Your task to perform on an android device: change timer sound Image 0: 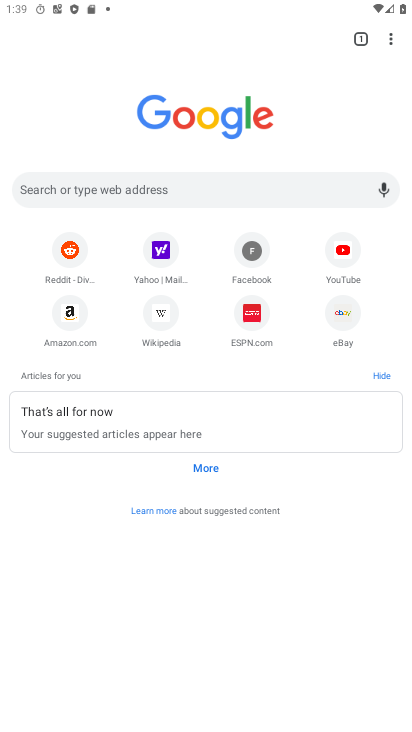
Step 0: press home button
Your task to perform on an android device: change timer sound Image 1: 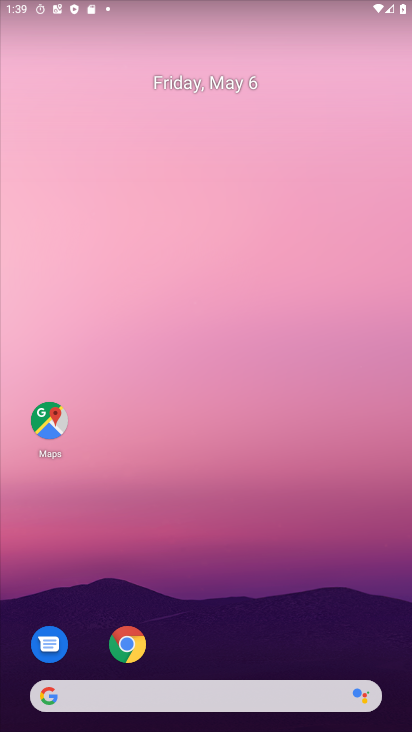
Step 1: drag from (209, 699) to (224, 64)
Your task to perform on an android device: change timer sound Image 2: 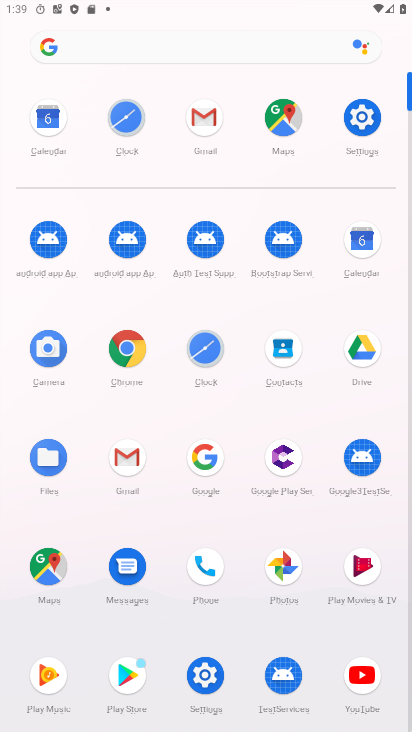
Step 2: click (219, 352)
Your task to perform on an android device: change timer sound Image 3: 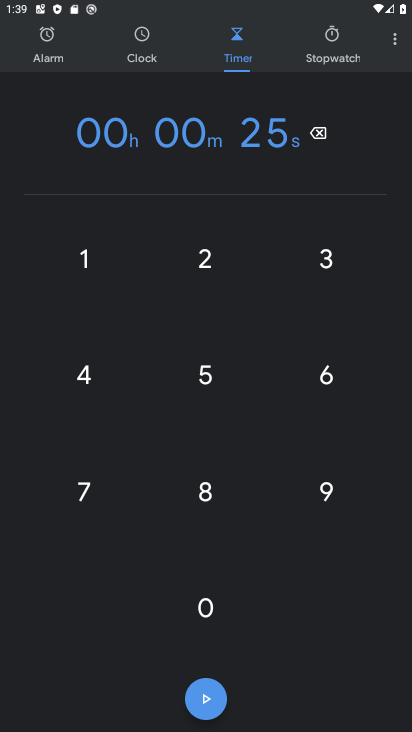
Step 3: click (392, 42)
Your task to perform on an android device: change timer sound Image 4: 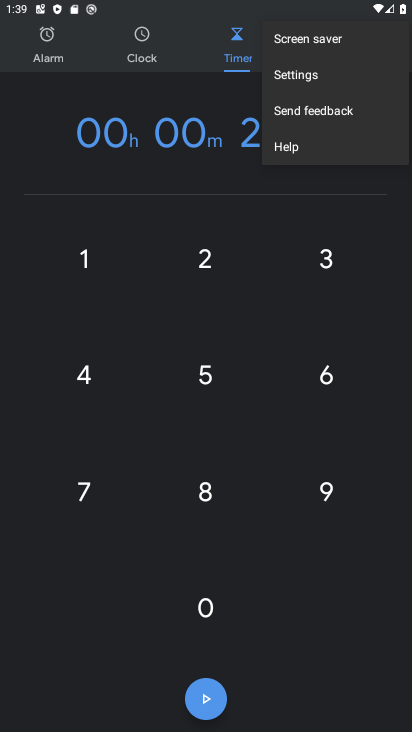
Step 4: click (300, 85)
Your task to perform on an android device: change timer sound Image 5: 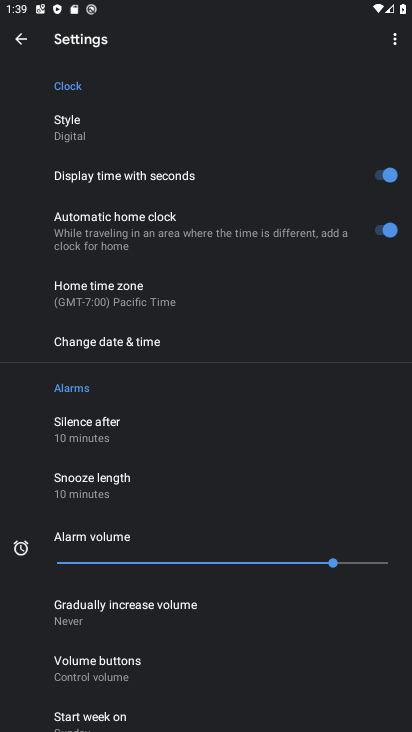
Step 5: drag from (170, 666) to (177, 272)
Your task to perform on an android device: change timer sound Image 6: 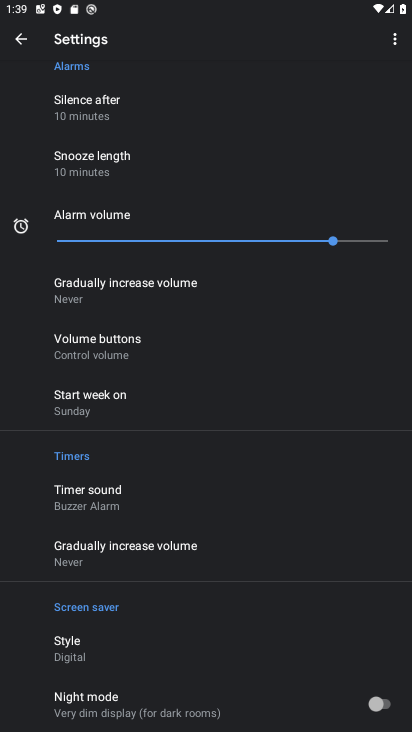
Step 6: click (113, 494)
Your task to perform on an android device: change timer sound Image 7: 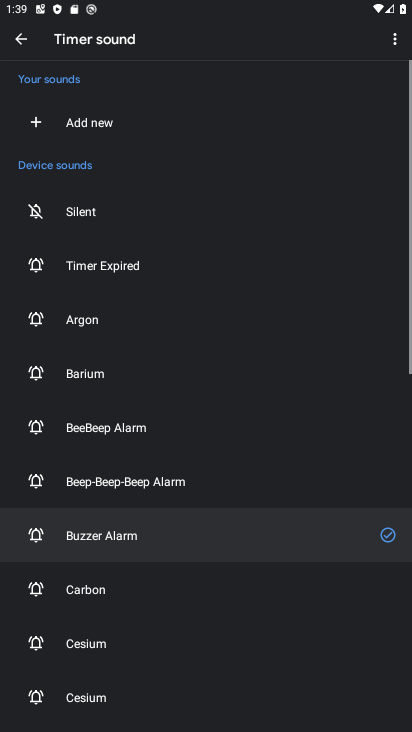
Step 7: click (134, 595)
Your task to perform on an android device: change timer sound Image 8: 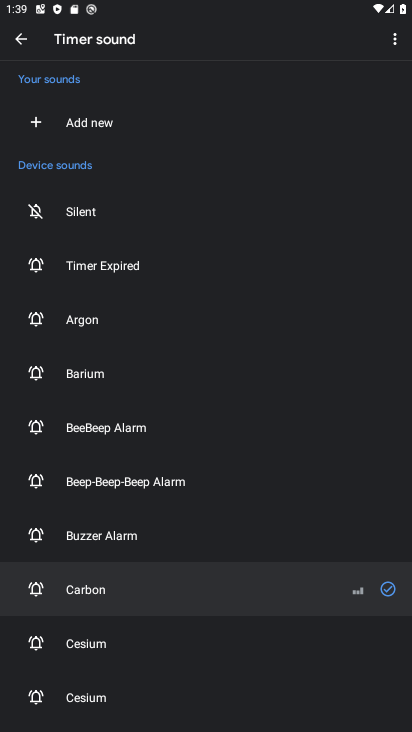
Step 8: task complete